Your task to perform on an android device: Go to privacy settings Image 0: 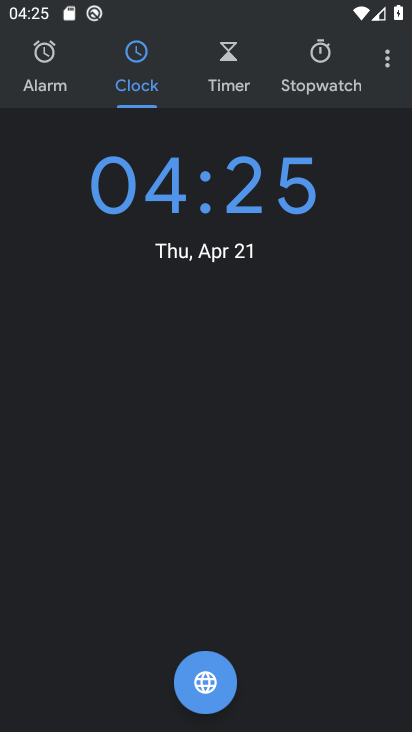
Step 0: press home button
Your task to perform on an android device: Go to privacy settings Image 1: 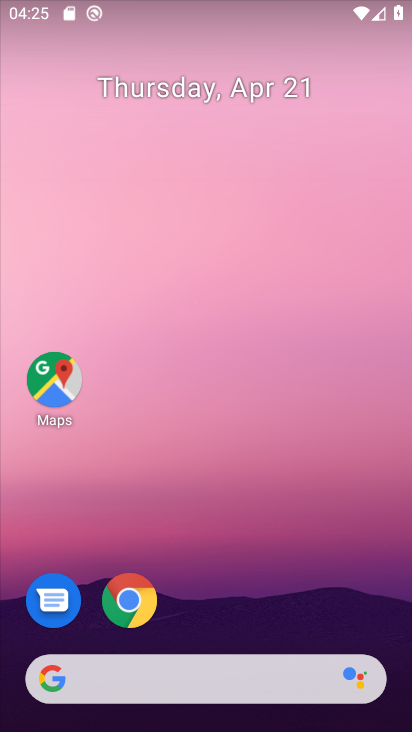
Step 1: drag from (356, 638) to (374, 14)
Your task to perform on an android device: Go to privacy settings Image 2: 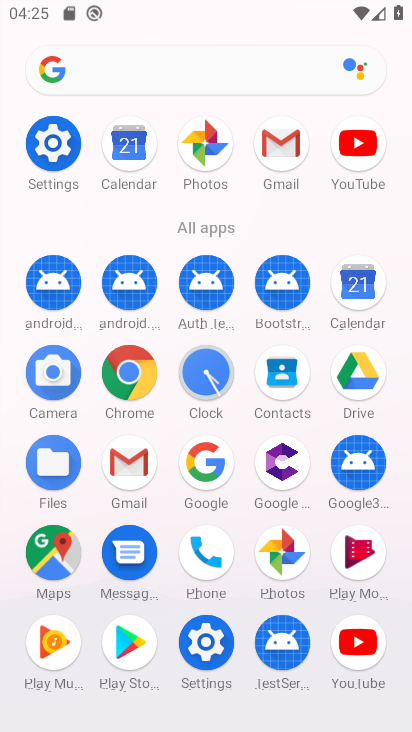
Step 2: click (53, 151)
Your task to perform on an android device: Go to privacy settings Image 3: 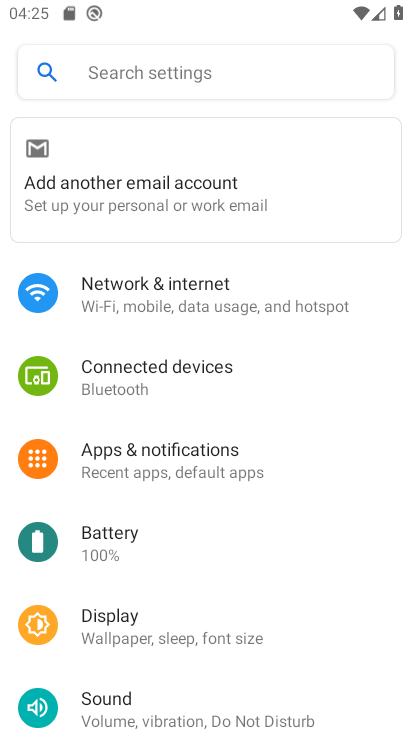
Step 3: drag from (363, 615) to (366, 415)
Your task to perform on an android device: Go to privacy settings Image 4: 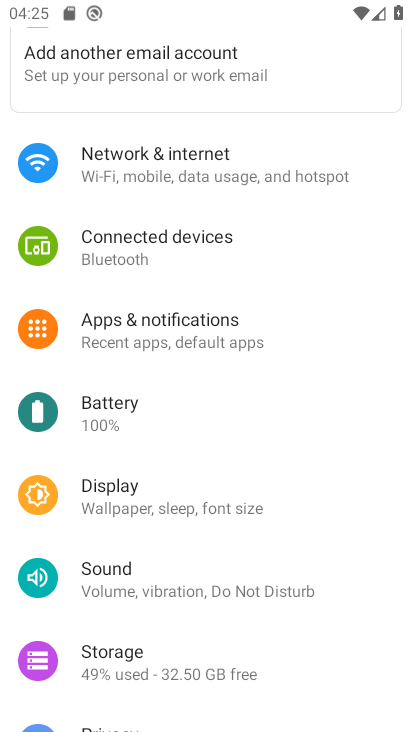
Step 4: drag from (343, 532) to (352, 283)
Your task to perform on an android device: Go to privacy settings Image 5: 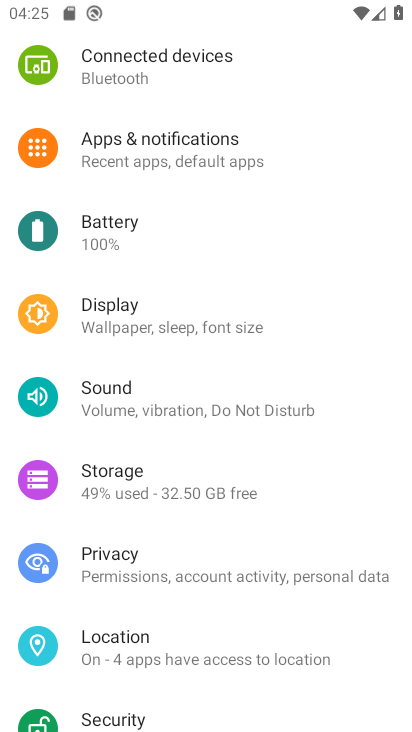
Step 5: click (103, 570)
Your task to perform on an android device: Go to privacy settings Image 6: 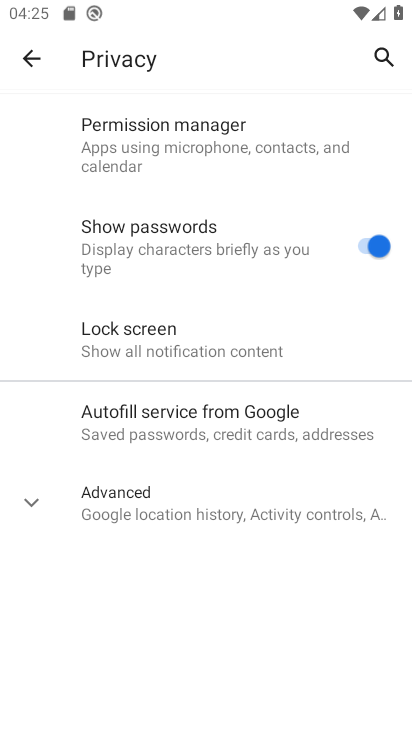
Step 6: click (34, 505)
Your task to perform on an android device: Go to privacy settings Image 7: 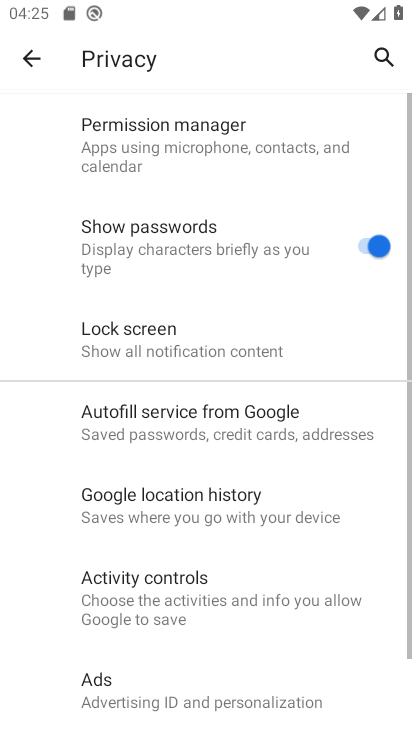
Step 7: task complete